Your task to perform on an android device: Open the calendar app, open the side menu, and click the "Day" option Image 0: 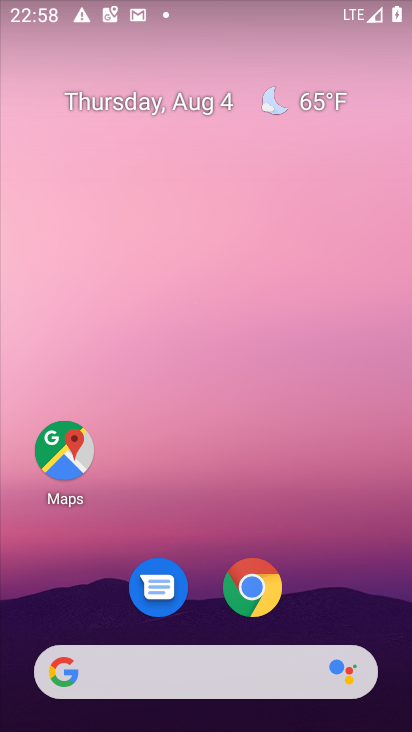
Step 0: drag from (231, 625) to (270, 344)
Your task to perform on an android device: Open the calendar app, open the side menu, and click the "Day" option Image 1: 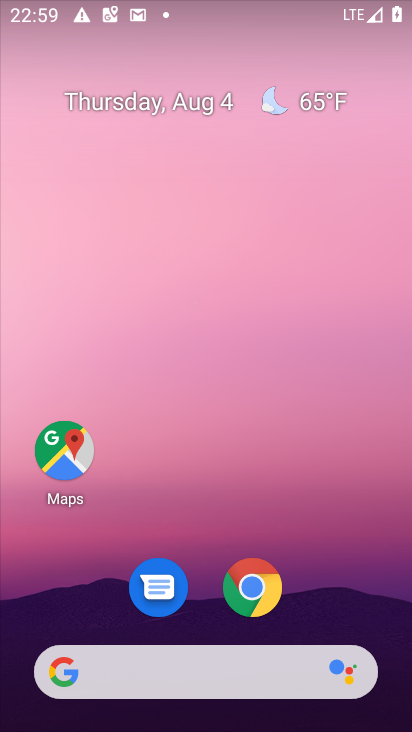
Step 1: drag from (142, 647) to (144, 68)
Your task to perform on an android device: Open the calendar app, open the side menu, and click the "Day" option Image 2: 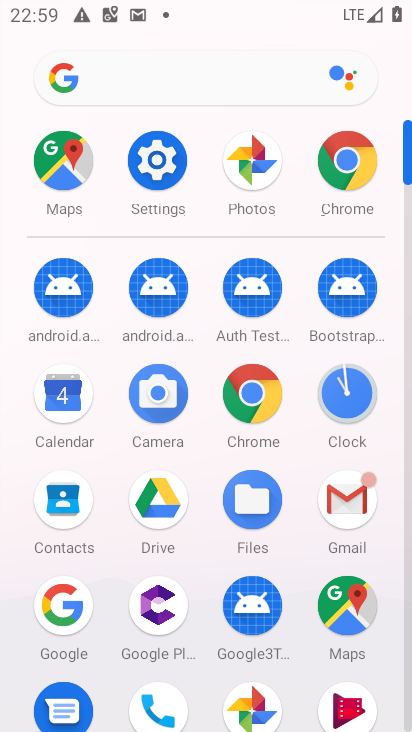
Step 2: click (65, 370)
Your task to perform on an android device: Open the calendar app, open the side menu, and click the "Day" option Image 3: 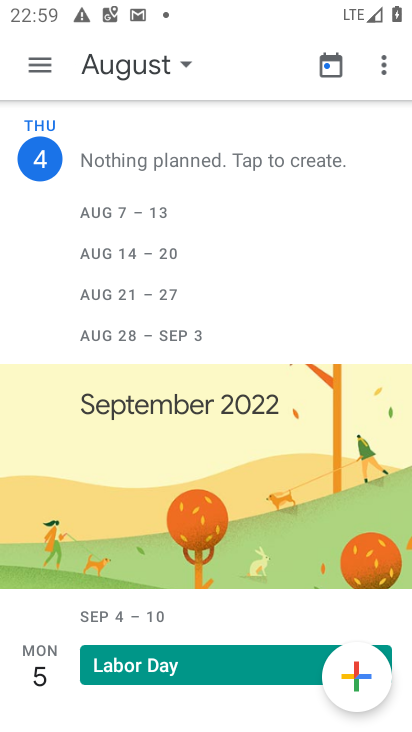
Step 3: click (45, 57)
Your task to perform on an android device: Open the calendar app, open the side menu, and click the "Day" option Image 4: 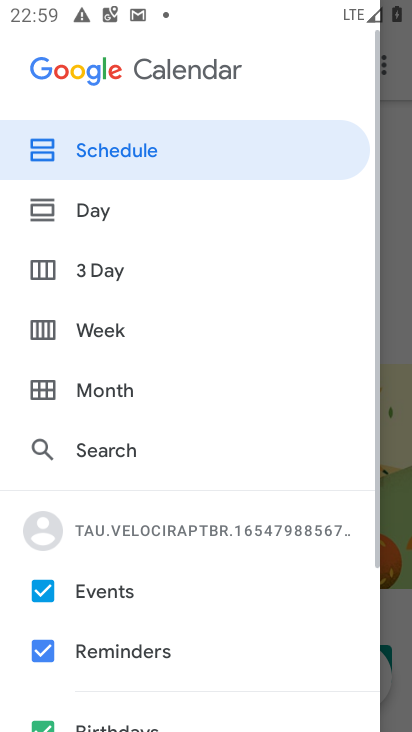
Step 4: click (91, 210)
Your task to perform on an android device: Open the calendar app, open the side menu, and click the "Day" option Image 5: 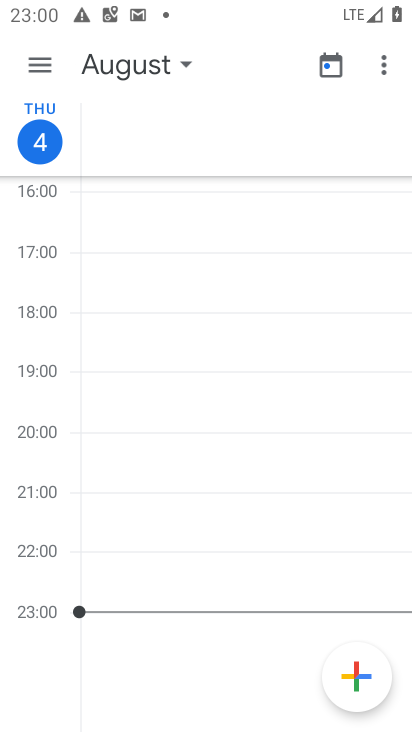
Step 5: task complete